Your task to perform on an android device: Open sound settings Image 0: 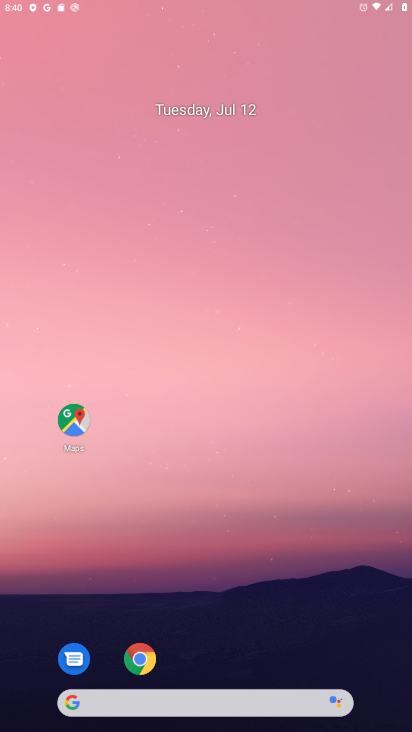
Step 0: drag from (358, 669) to (183, 237)
Your task to perform on an android device: Open sound settings Image 1: 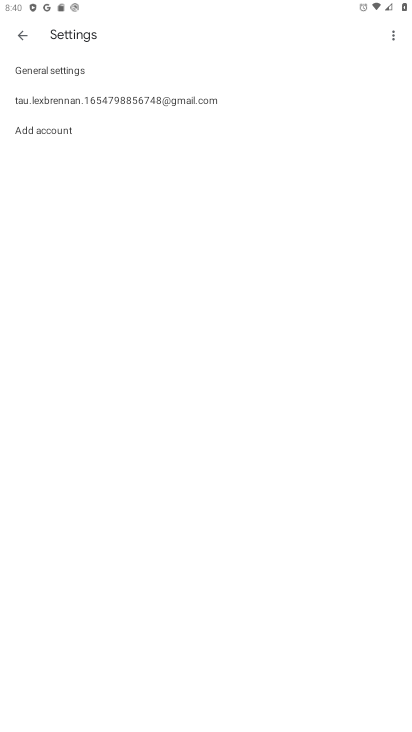
Step 1: click (21, 36)
Your task to perform on an android device: Open sound settings Image 2: 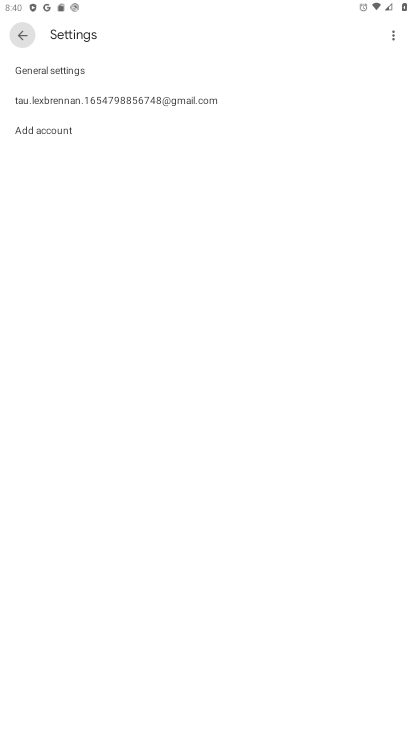
Step 2: click (22, 34)
Your task to perform on an android device: Open sound settings Image 3: 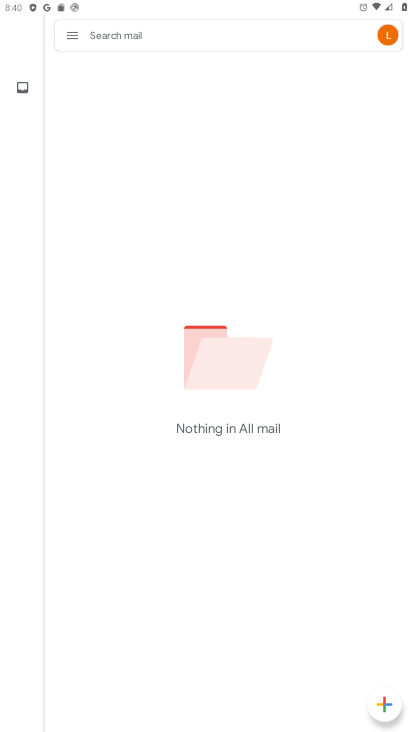
Step 3: press back button
Your task to perform on an android device: Open sound settings Image 4: 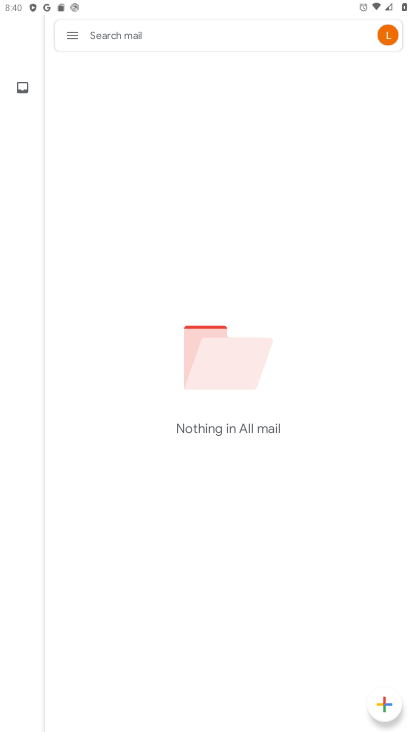
Step 4: press back button
Your task to perform on an android device: Open sound settings Image 5: 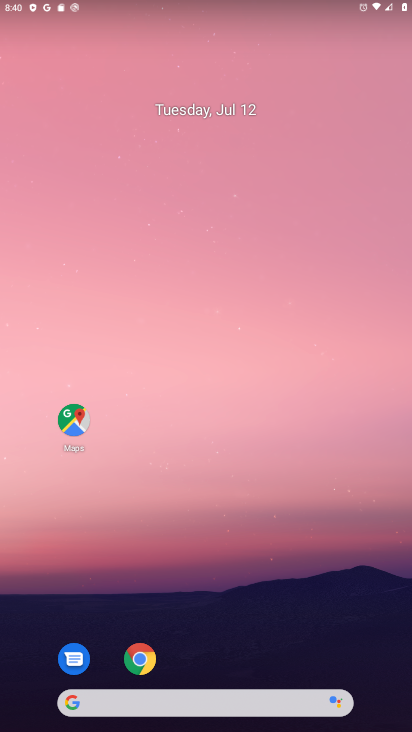
Step 5: drag from (221, 623) to (88, 84)
Your task to perform on an android device: Open sound settings Image 6: 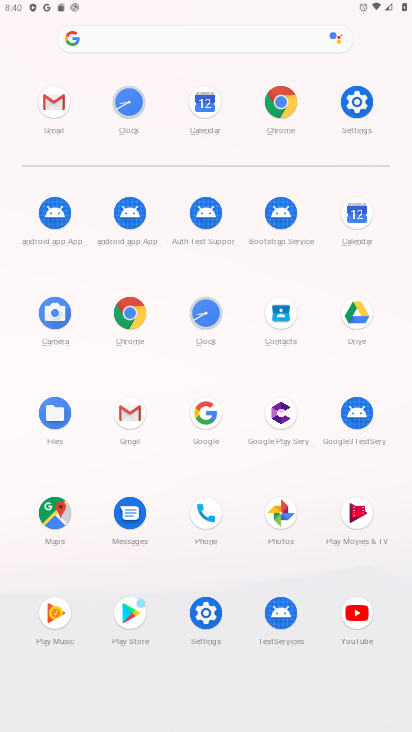
Step 6: click (203, 602)
Your task to perform on an android device: Open sound settings Image 7: 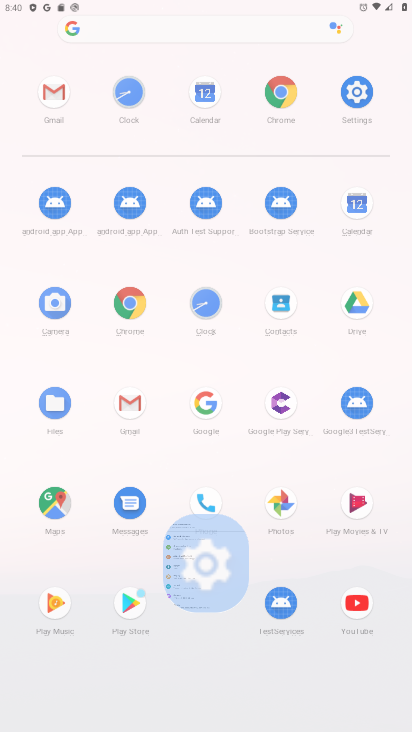
Step 7: click (203, 602)
Your task to perform on an android device: Open sound settings Image 8: 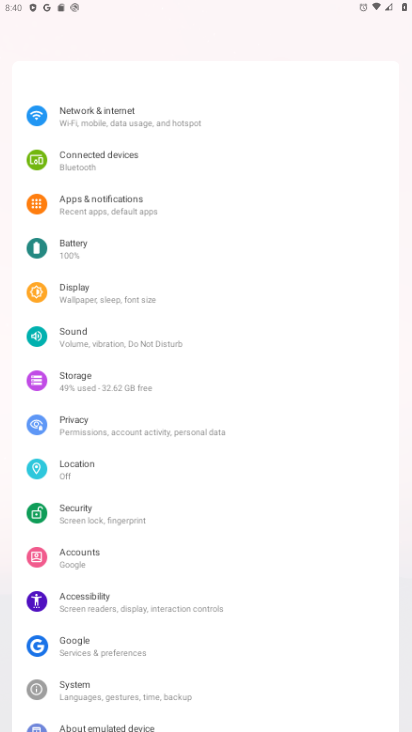
Step 8: click (204, 602)
Your task to perform on an android device: Open sound settings Image 9: 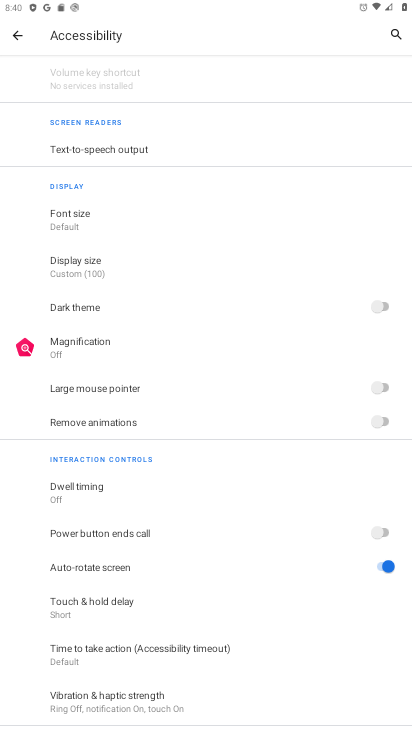
Step 9: click (24, 28)
Your task to perform on an android device: Open sound settings Image 10: 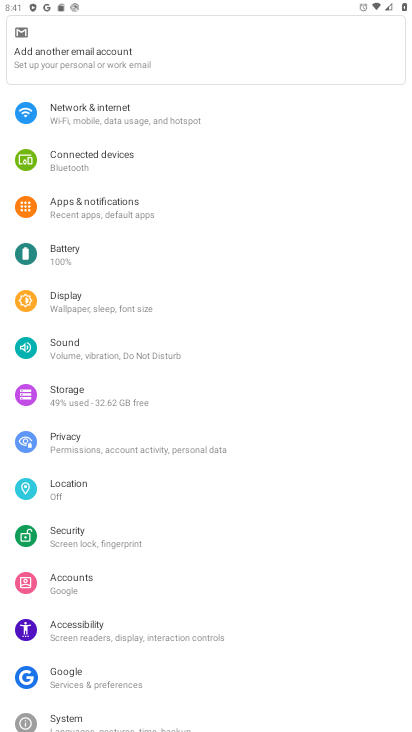
Step 10: click (70, 351)
Your task to perform on an android device: Open sound settings Image 11: 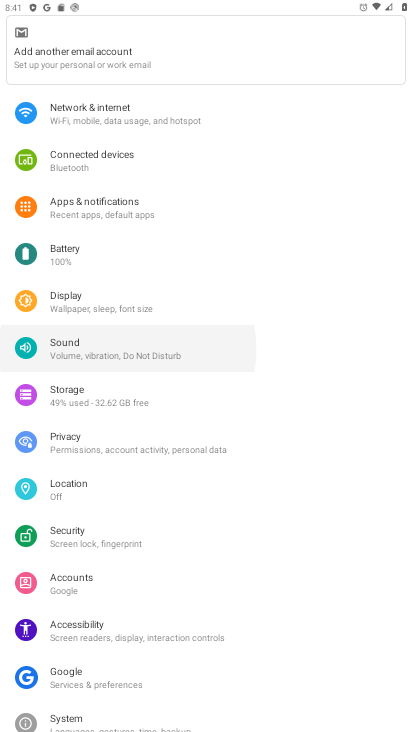
Step 11: click (71, 352)
Your task to perform on an android device: Open sound settings Image 12: 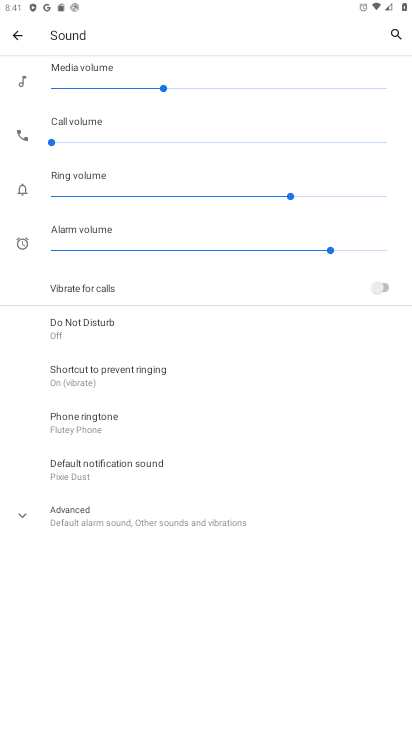
Step 12: task complete